Your task to perform on an android device: find which apps use the phone's location Image 0: 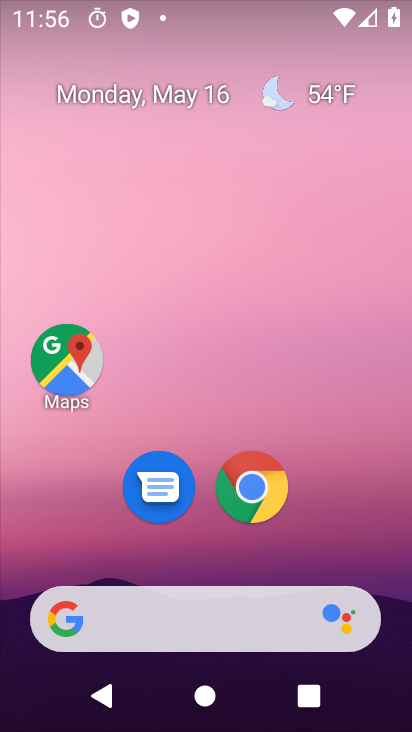
Step 0: drag from (183, 539) to (254, 88)
Your task to perform on an android device: find which apps use the phone's location Image 1: 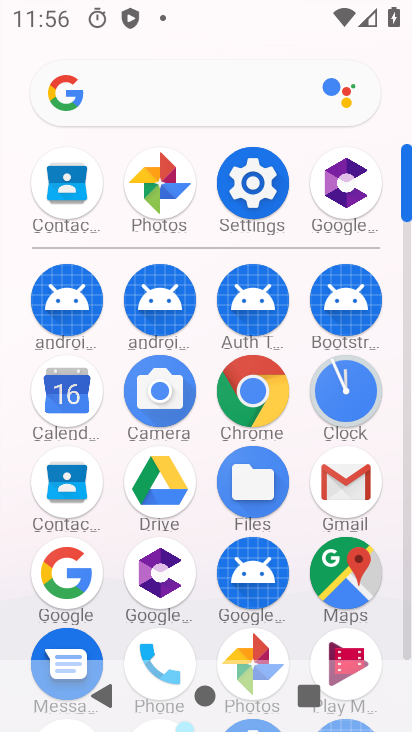
Step 1: click (244, 193)
Your task to perform on an android device: find which apps use the phone's location Image 2: 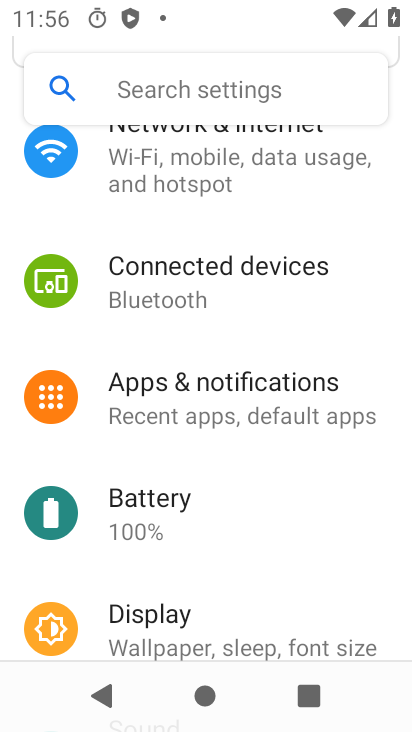
Step 2: drag from (176, 554) to (256, 84)
Your task to perform on an android device: find which apps use the phone's location Image 3: 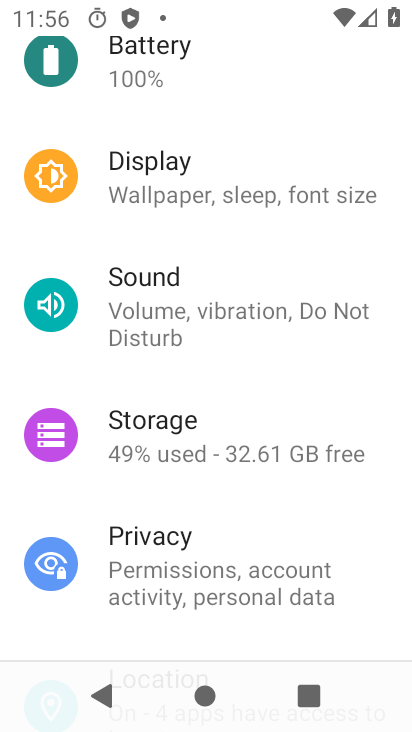
Step 3: drag from (205, 588) to (219, 114)
Your task to perform on an android device: find which apps use the phone's location Image 4: 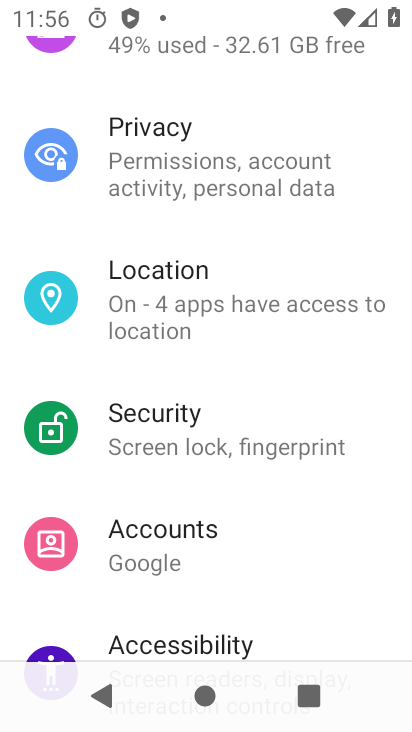
Step 4: click (147, 274)
Your task to perform on an android device: find which apps use the phone's location Image 5: 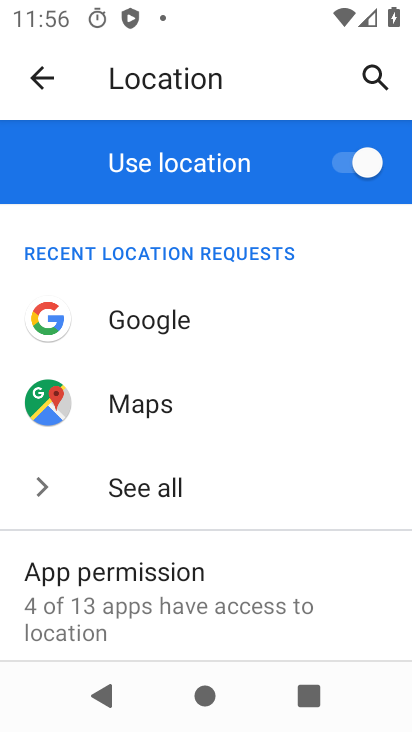
Step 5: click (135, 598)
Your task to perform on an android device: find which apps use the phone's location Image 6: 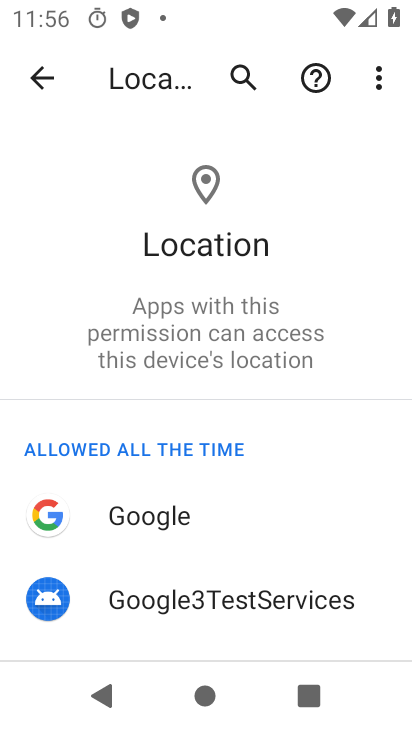
Step 6: task complete